Your task to perform on an android device: change notifications settings Image 0: 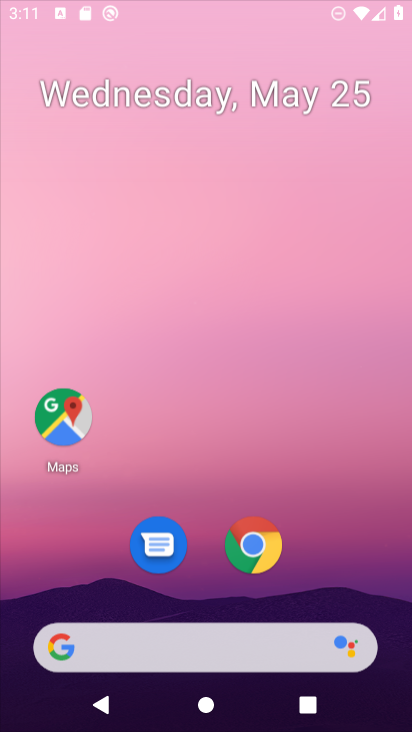
Step 0: drag from (345, 534) to (315, 83)
Your task to perform on an android device: change notifications settings Image 1: 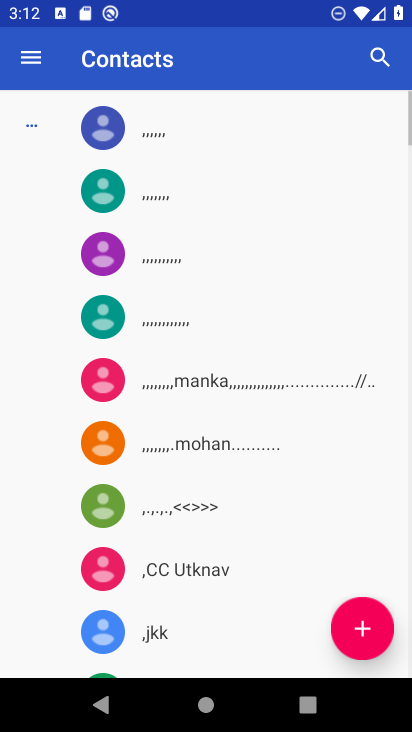
Step 1: press home button
Your task to perform on an android device: change notifications settings Image 2: 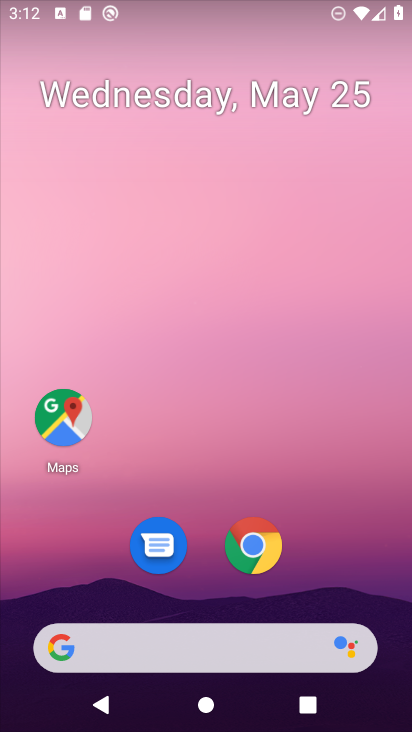
Step 2: drag from (334, 588) to (264, 19)
Your task to perform on an android device: change notifications settings Image 3: 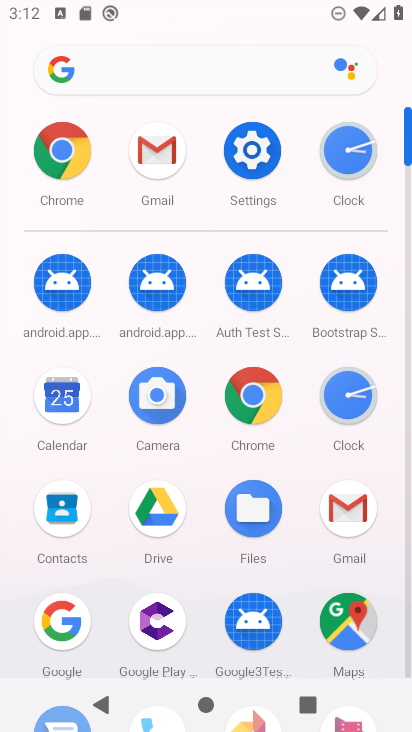
Step 3: click (256, 144)
Your task to perform on an android device: change notifications settings Image 4: 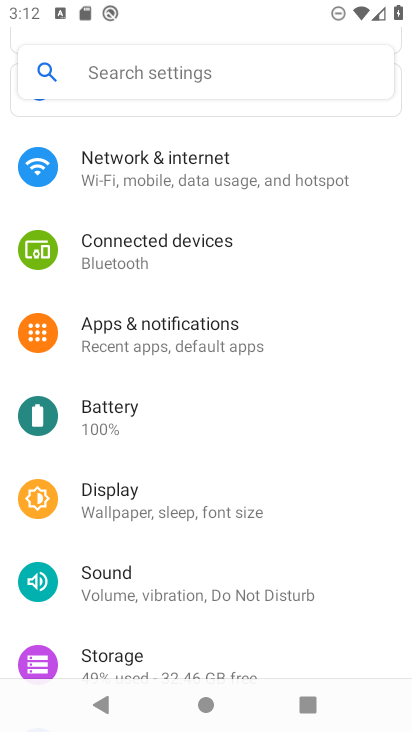
Step 4: click (218, 333)
Your task to perform on an android device: change notifications settings Image 5: 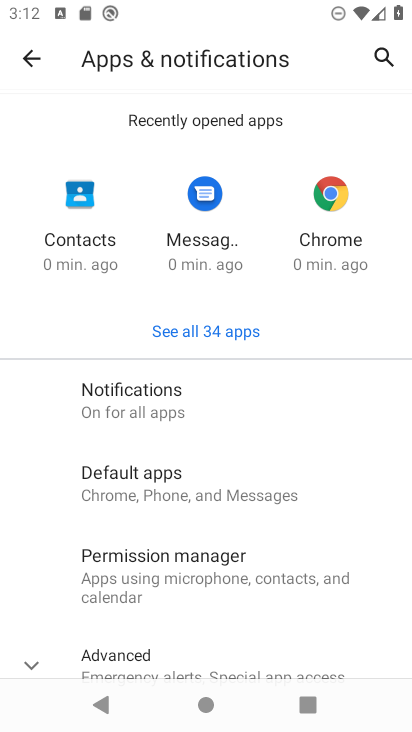
Step 5: task complete